Your task to perform on an android device: Open calendar and show me the fourth week of next month Image 0: 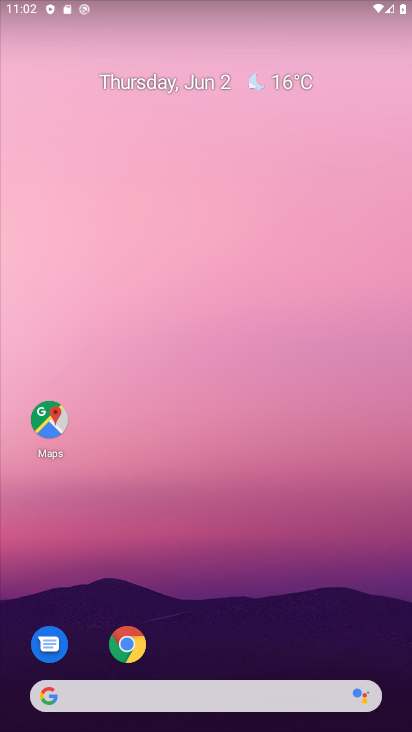
Step 0: drag from (201, 668) to (311, 173)
Your task to perform on an android device: Open calendar and show me the fourth week of next month Image 1: 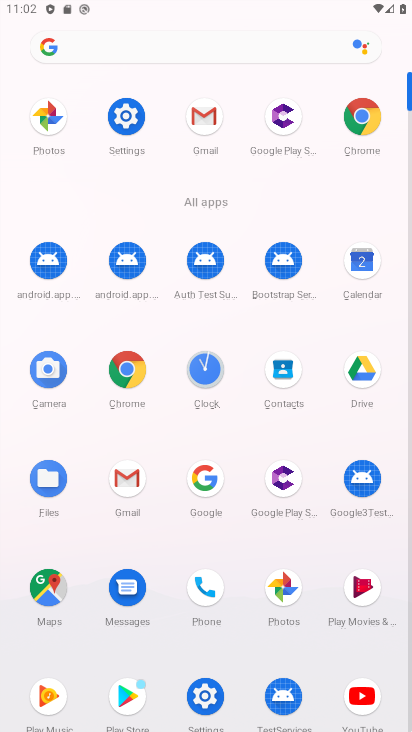
Step 1: click (355, 264)
Your task to perform on an android device: Open calendar and show me the fourth week of next month Image 2: 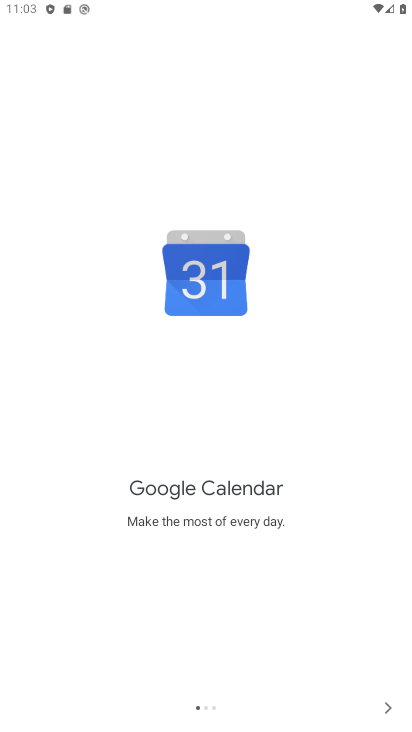
Step 2: click (386, 700)
Your task to perform on an android device: Open calendar and show me the fourth week of next month Image 3: 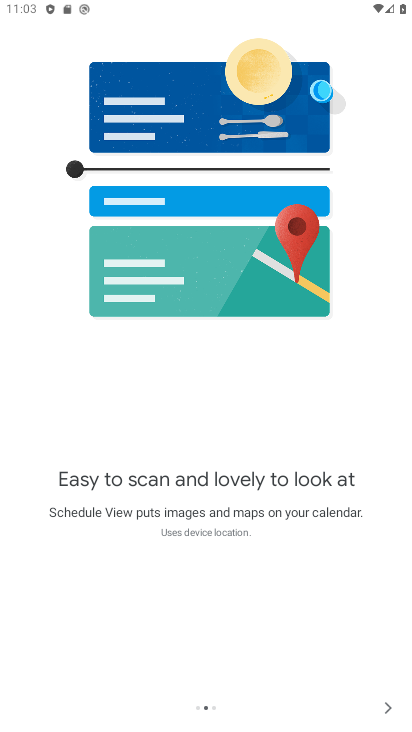
Step 3: click (385, 712)
Your task to perform on an android device: Open calendar and show me the fourth week of next month Image 4: 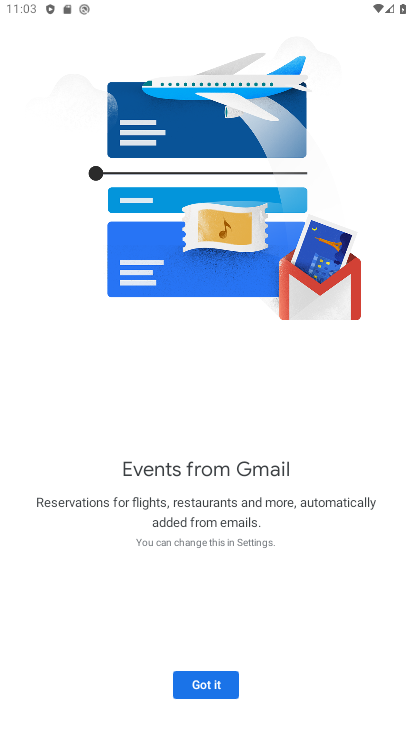
Step 4: click (201, 688)
Your task to perform on an android device: Open calendar and show me the fourth week of next month Image 5: 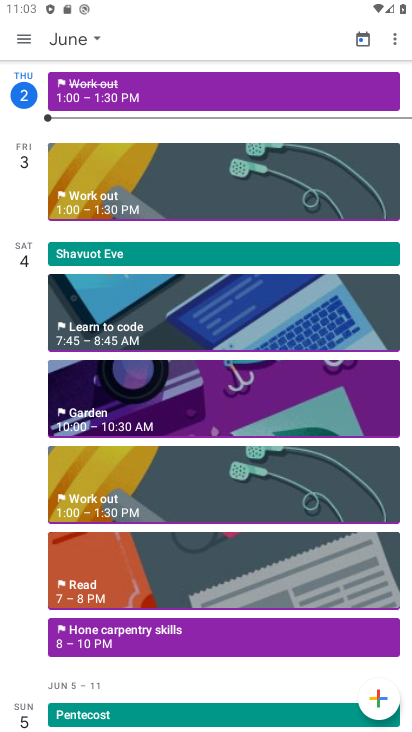
Step 5: click (90, 42)
Your task to perform on an android device: Open calendar and show me the fourth week of next month Image 6: 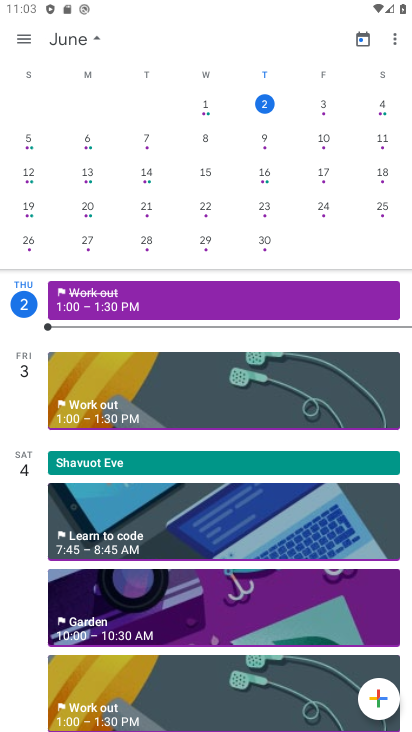
Step 6: drag from (402, 187) to (66, 162)
Your task to perform on an android device: Open calendar and show me the fourth week of next month Image 7: 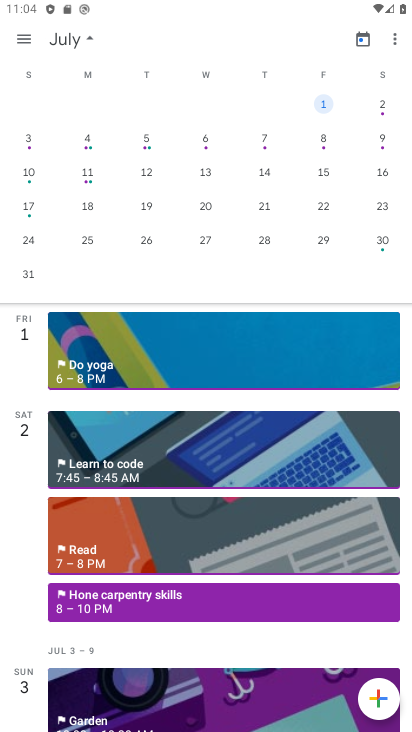
Step 7: click (29, 215)
Your task to perform on an android device: Open calendar and show me the fourth week of next month Image 8: 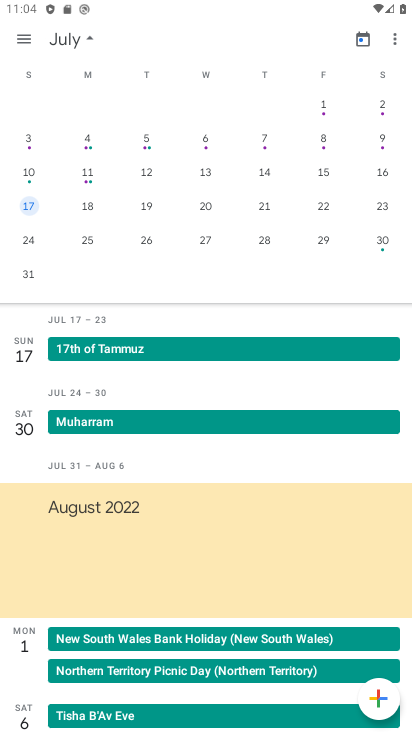
Step 8: click (82, 208)
Your task to perform on an android device: Open calendar and show me the fourth week of next month Image 9: 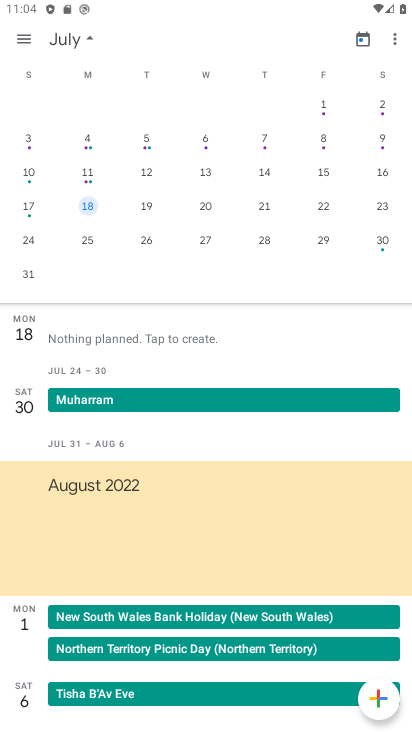
Step 9: click (146, 208)
Your task to perform on an android device: Open calendar and show me the fourth week of next month Image 10: 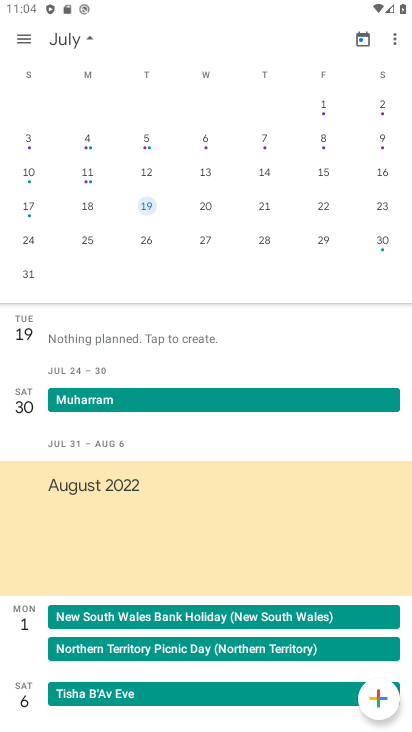
Step 10: click (200, 211)
Your task to perform on an android device: Open calendar and show me the fourth week of next month Image 11: 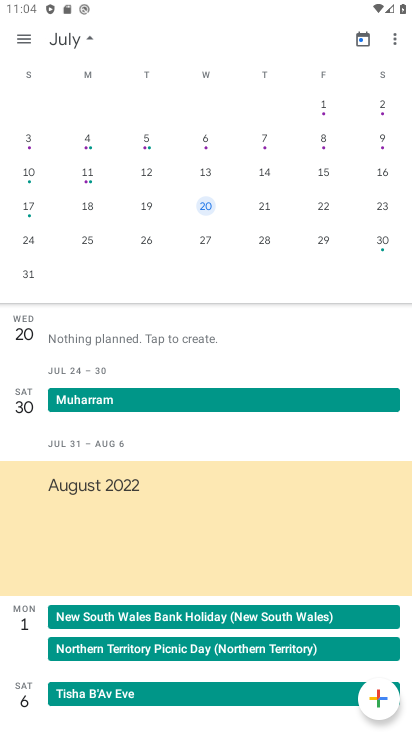
Step 11: click (252, 214)
Your task to perform on an android device: Open calendar and show me the fourth week of next month Image 12: 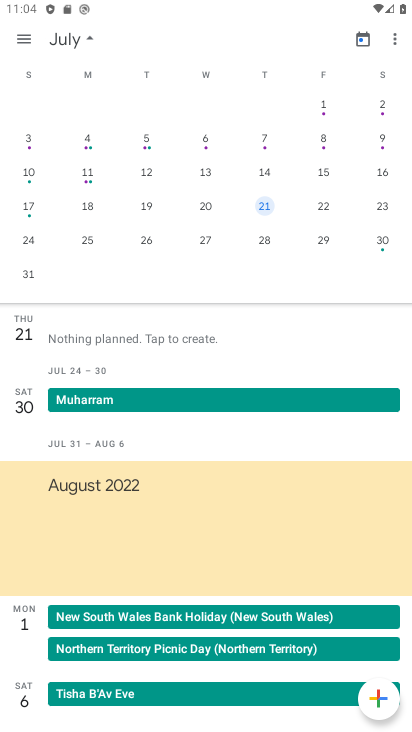
Step 12: click (332, 211)
Your task to perform on an android device: Open calendar and show me the fourth week of next month Image 13: 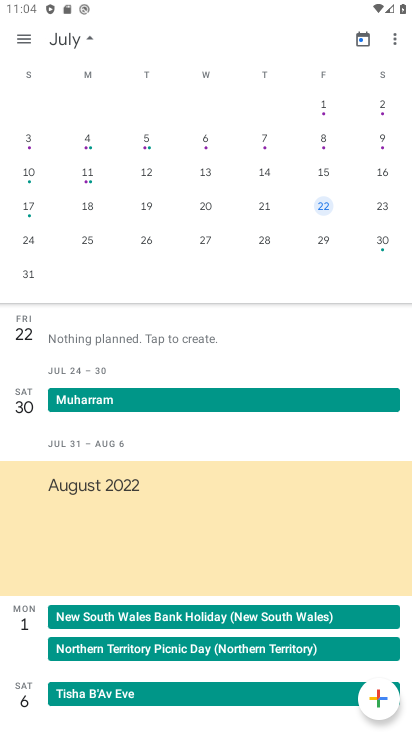
Step 13: click (386, 206)
Your task to perform on an android device: Open calendar and show me the fourth week of next month Image 14: 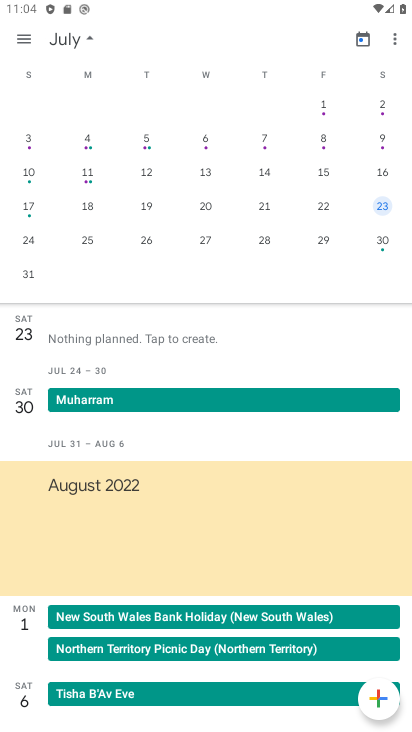
Step 14: task complete